Your task to perform on an android device: When is my next appointment? Image 0: 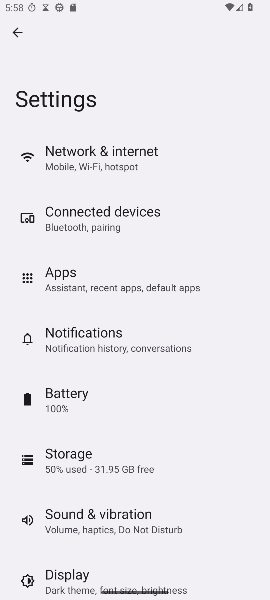
Step 0: press home button
Your task to perform on an android device: When is my next appointment? Image 1: 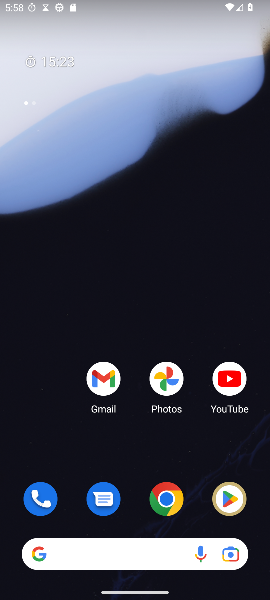
Step 1: drag from (138, 539) to (122, 91)
Your task to perform on an android device: When is my next appointment? Image 2: 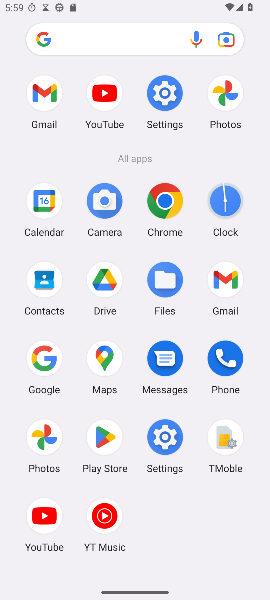
Step 2: click (42, 207)
Your task to perform on an android device: When is my next appointment? Image 3: 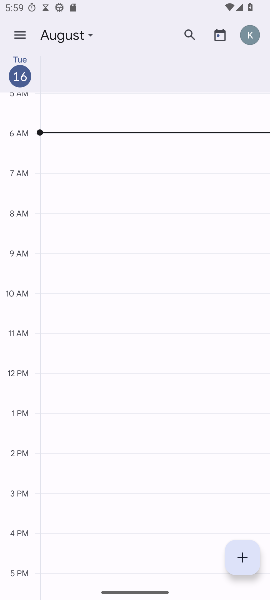
Step 3: click (61, 46)
Your task to perform on an android device: When is my next appointment? Image 4: 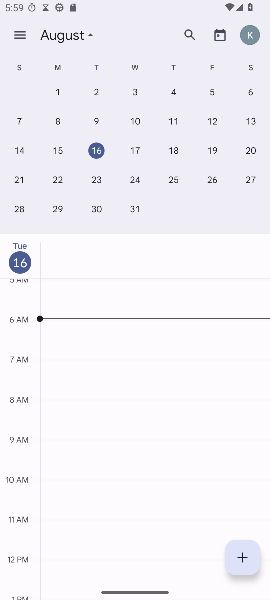
Step 4: task complete